Your task to perform on an android device: Open CNN.com Image 0: 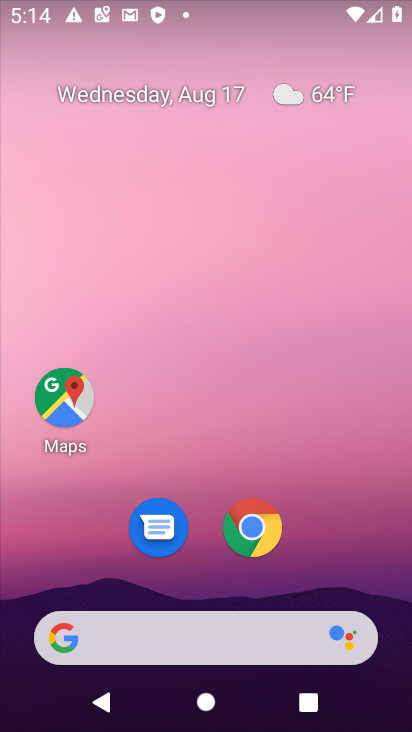
Step 0: drag from (255, 615) to (250, 193)
Your task to perform on an android device: Open CNN.com Image 1: 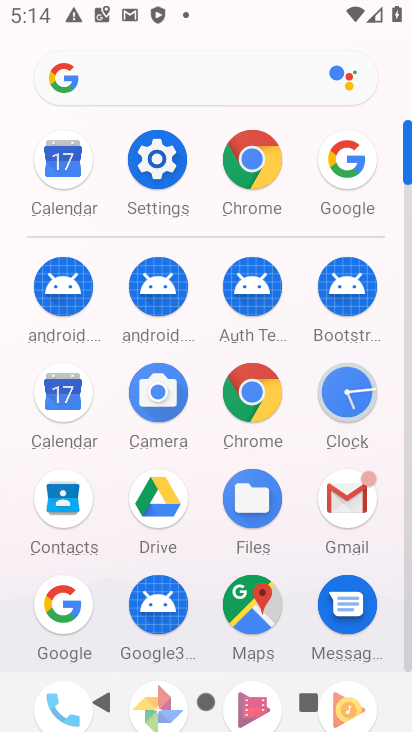
Step 1: click (69, 602)
Your task to perform on an android device: Open CNN.com Image 2: 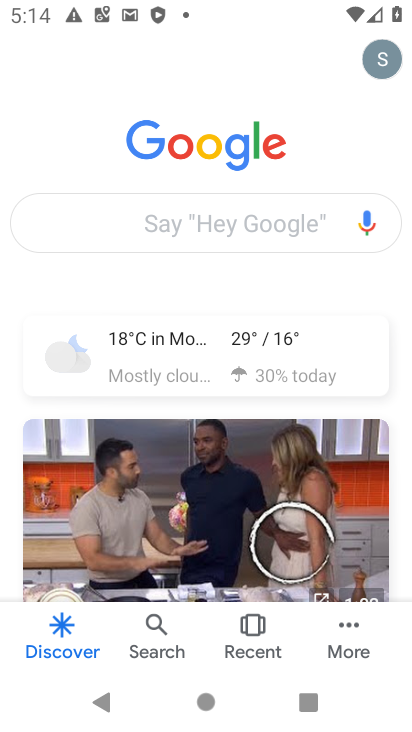
Step 2: click (137, 222)
Your task to perform on an android device: Open CNN.com Image 3: 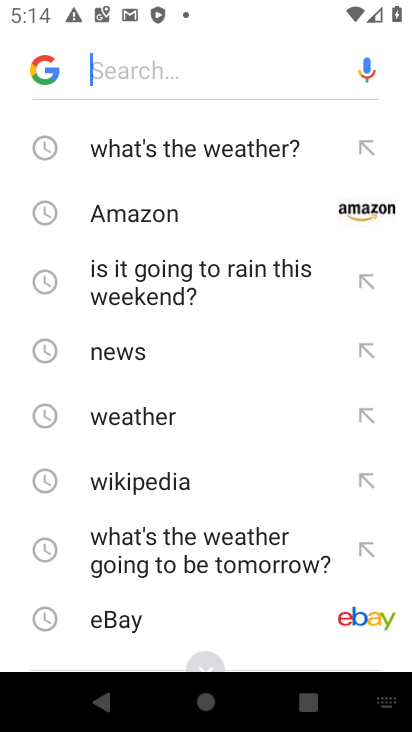
Step 3: drag from (124, 600) to (123, 355)
Your task to perform on an android device: Open CNN.com Image 4: 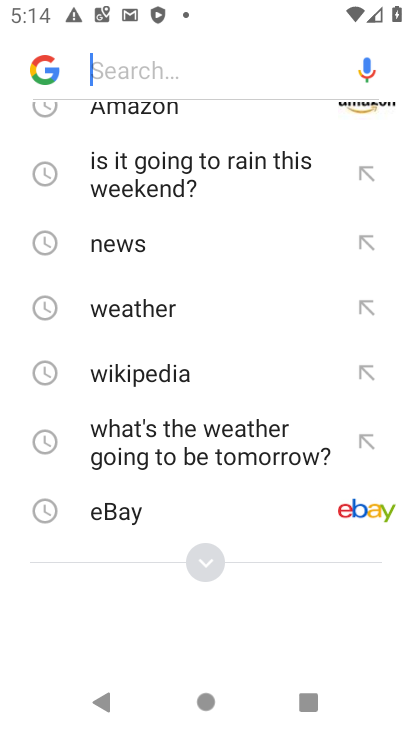
Step 4: click (192, 569)
Your task to perform on an android device: Open CNN.com Image 5: 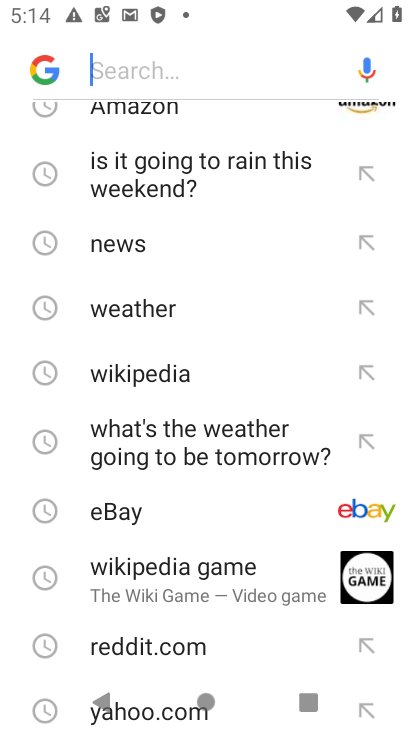
Step 5: drag from (162, 654) to (150, 352)
Your task to perform on an android device: Open CNN.com Image 6: 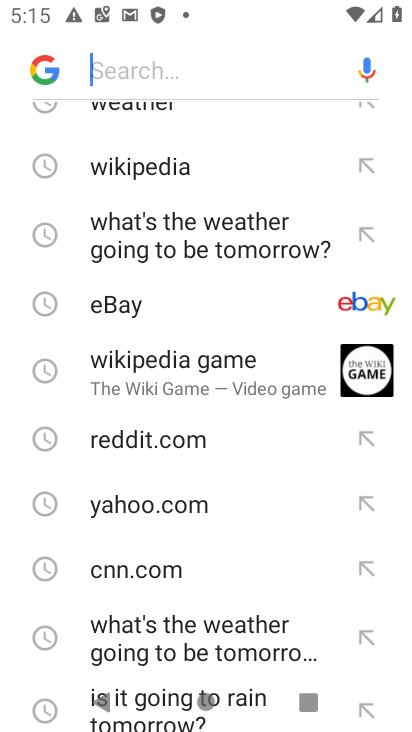
Step 6: click (137, 573)
Your task to perform on an android device: Open CNN.com Image 7: 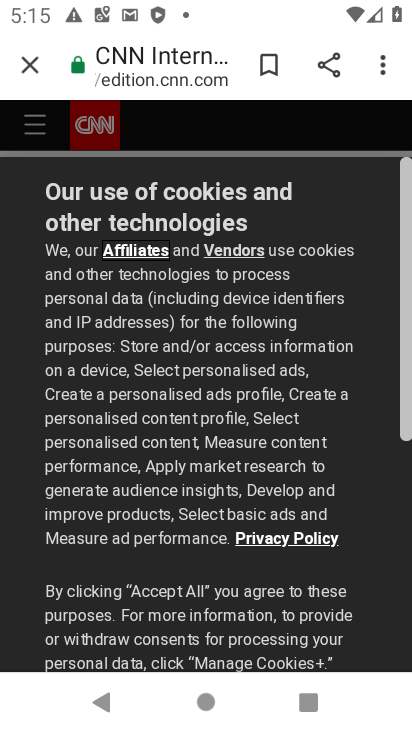
Step 7: task complete